Your task to perform on an android device: Check the news Image 0: 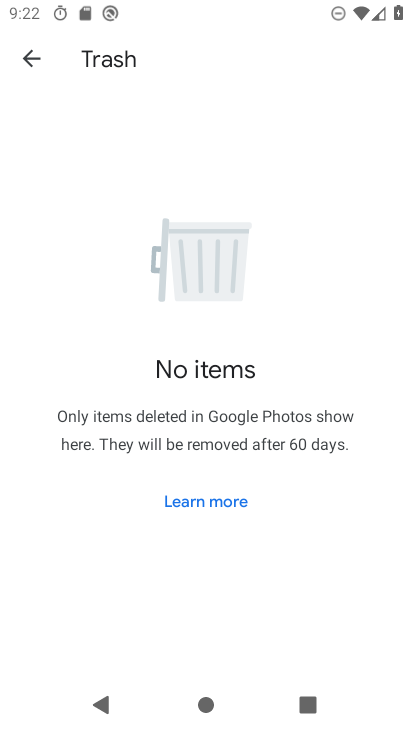
Step 0: press home button
Your task to perform on an android device: Check the news Image 1: 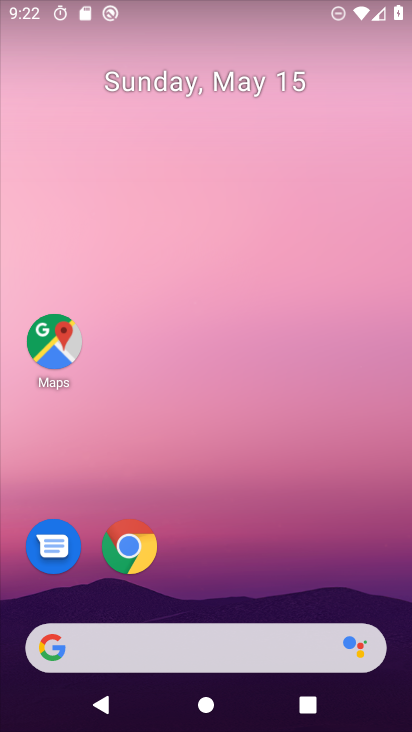
Step 1: click (186, 643)
Your task to perform on an android device: Check the news Image 2: 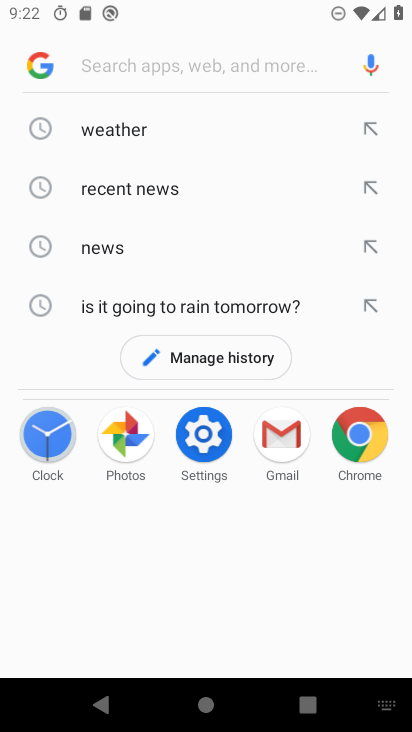
Step 2: click (96, 237)
Your task to perform on an android device: Check the news Image 3: 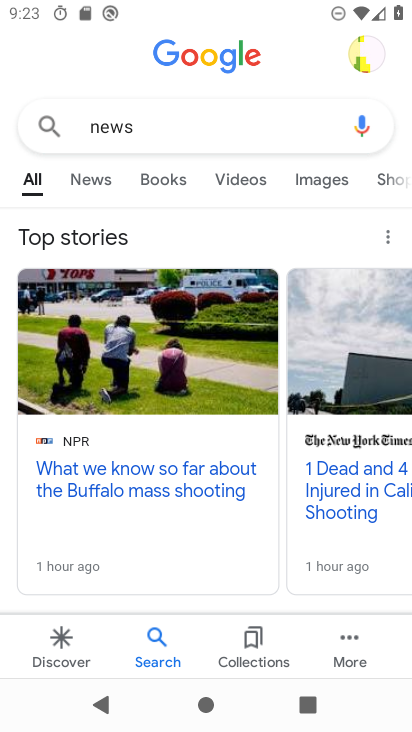
Step 3: task complete